Your task to perform on an android device: Open wifi settings Image 0: 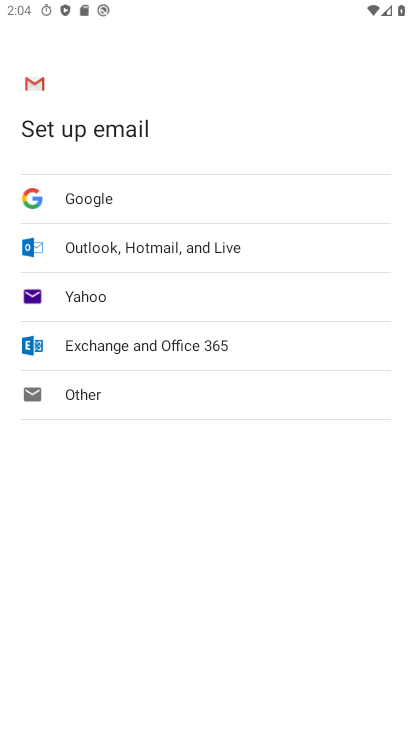
Step 0: press home button
Your task to perform on an android device: Open wifi settings Image 1: 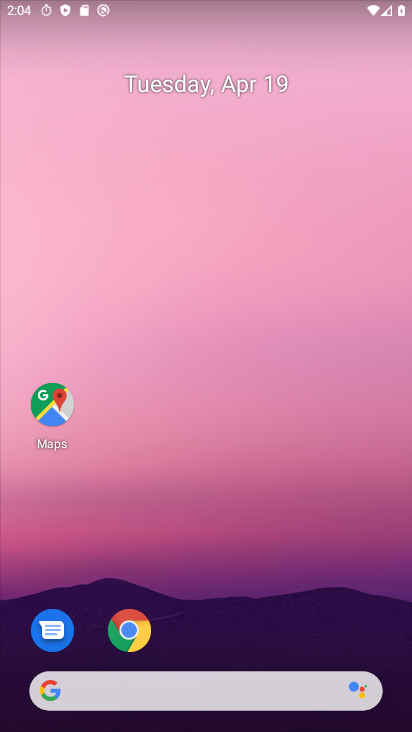
Step 1: drag from (260, 613) to (243, 48)
Your task to perform on an android device: Open wifi settings Image 2: 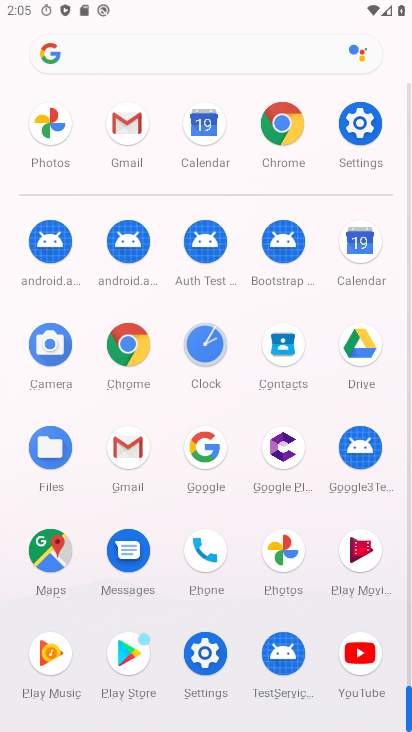
Step 2: click (366, 122)
Your task to perform on an android device: Open wifi settings Image 3: 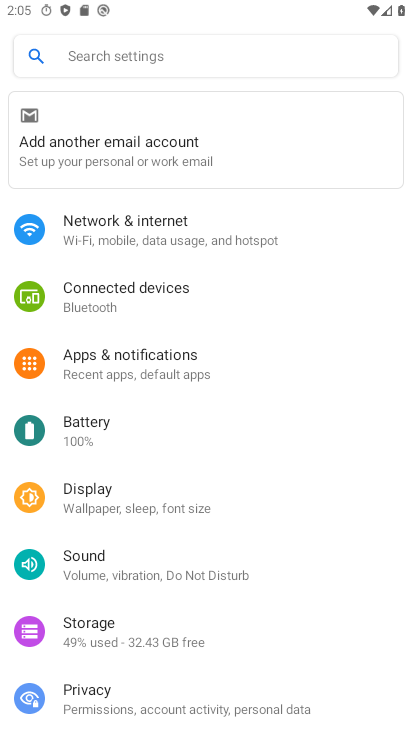
Step 3: click (128, 239)
Your task to perform on an android device: Open wifi settings Image 4: 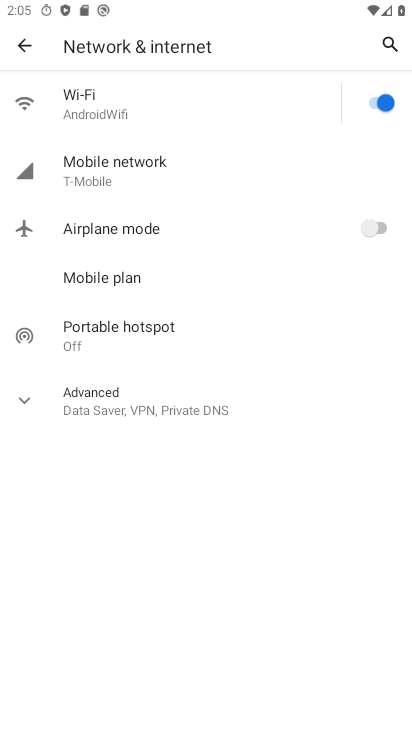
Step 4: click (95, 105)
Your task to perform on an android device: Open wifi settings Image 5: 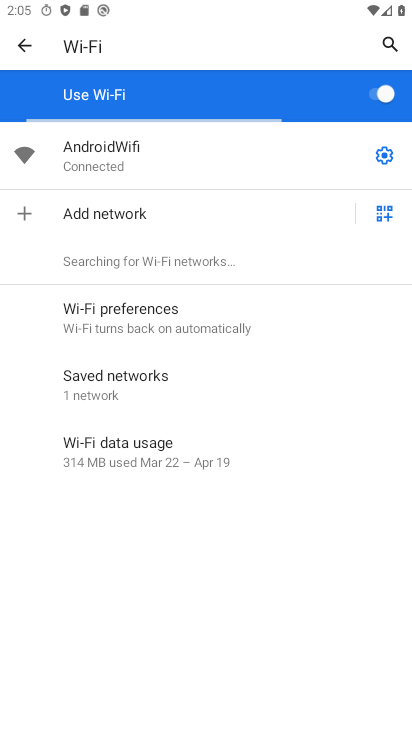
Step 5: task complete